Your task to perform on an android device: empty trash in google photos Image 0: 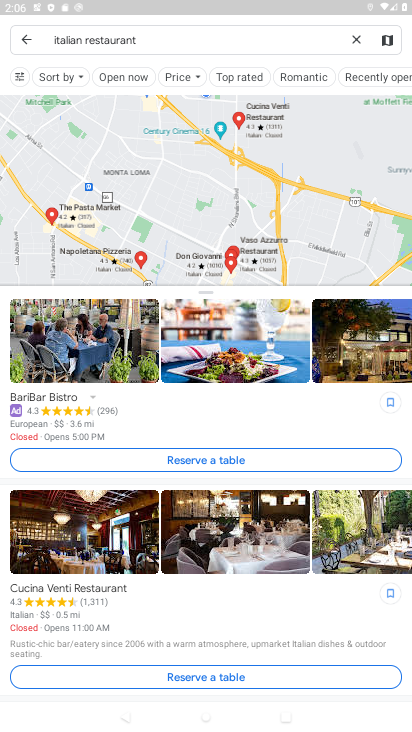
Step 0: press home button
Your task to perform on an android device: empty trash in google photos Image 1: 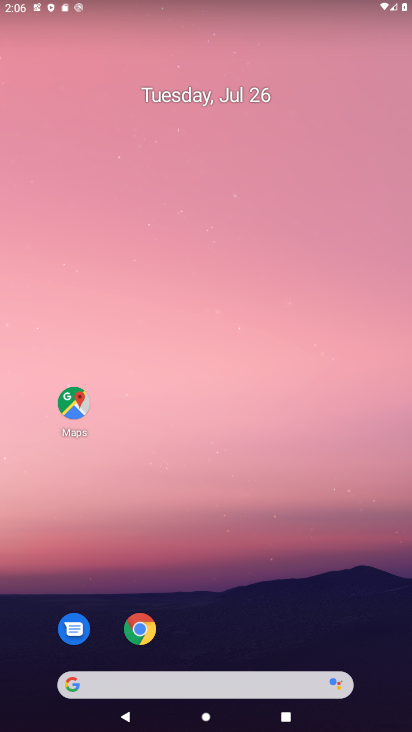
Step 1: drag from (190, 609) to (220, 199)
Your task to perform on an android device: empty trash in google photos Image 2: 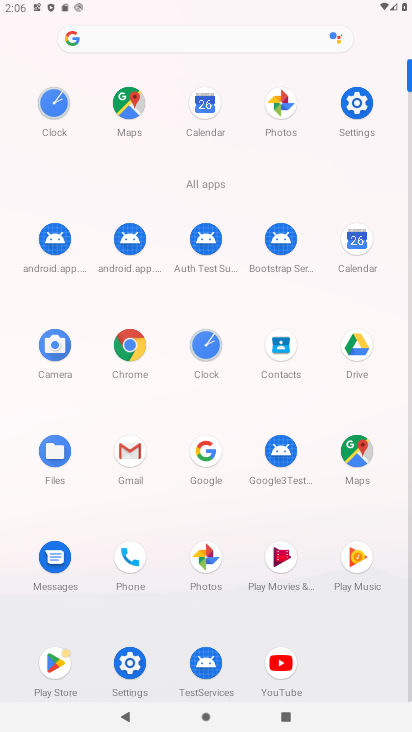
Step 2: click (214, 577)
Your task to perform on an android device: empty trash in google photos Image 3: 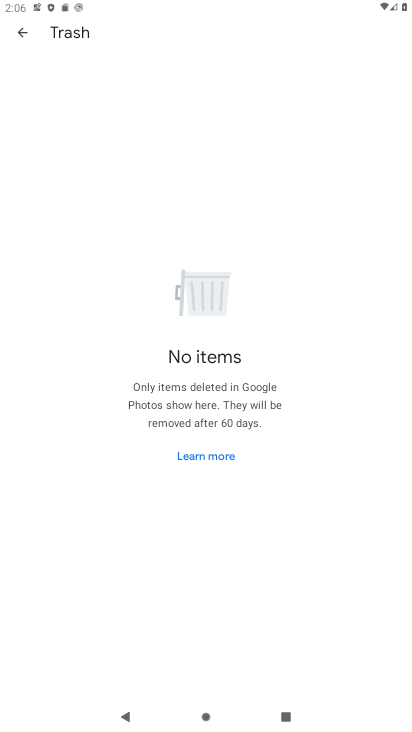
Step 3: task complete